Your task to perform on an android device: set default search engine in the chrome app Image 0: 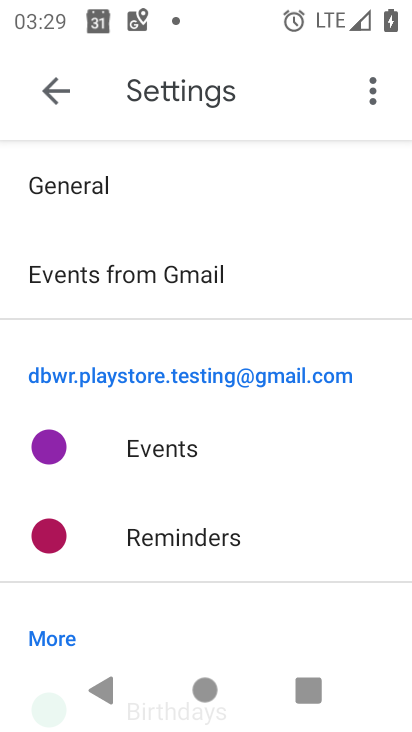
Step 0: press home button
Your task to perform on an android device: set default search engine in the chrome app Image 1: 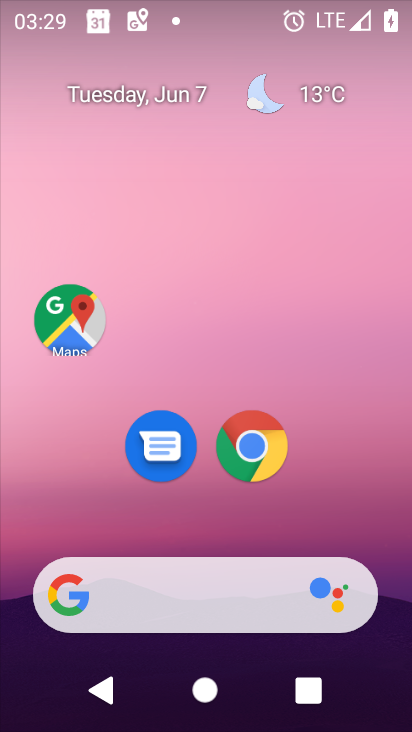
Step 1: drag from (116, 607) to (325, 55)
Your task to perform on an android device: set default search engine in the chrome app Image 2: 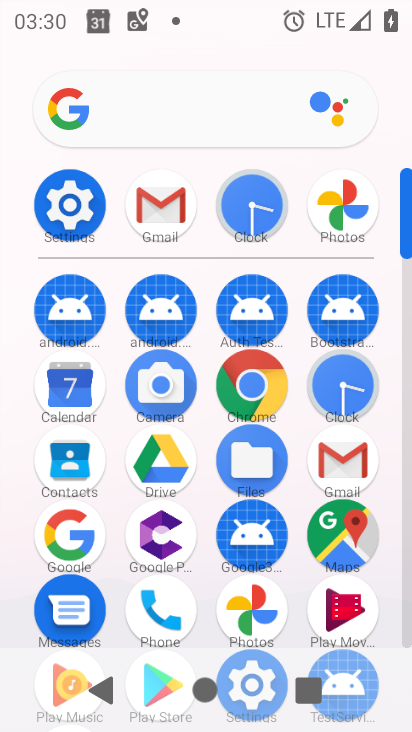
Step 2: click (261, 375)
Your task to perform on an android device: set default search engine in the chrome app Image 3: 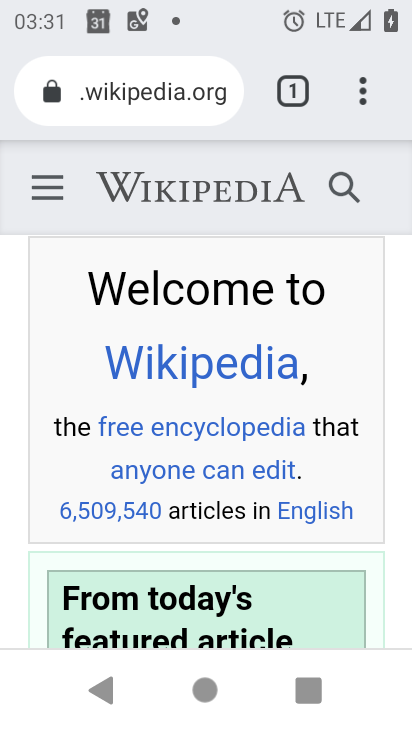
Step 3: click (366, 96)
Your task to perform on an android device: set default search engine in the chrome app Image 4: 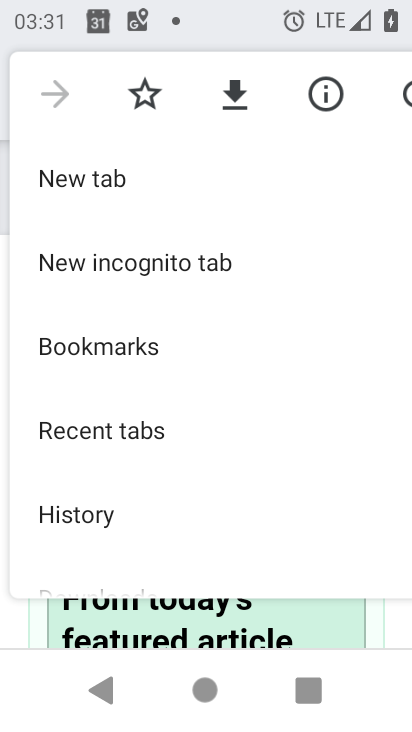
Step 4: drag from (166, 449) to (214, 10)
Your task to perform on an android device: set default search engine in the chrome app Image 5: 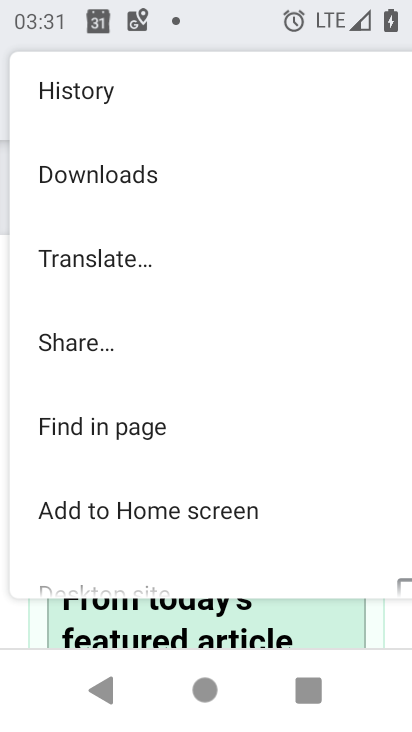
Step 5: drag from (178, 522) to (207, 144)
Your task to perform on an android device: set default search engine in the chrome app Image 6: 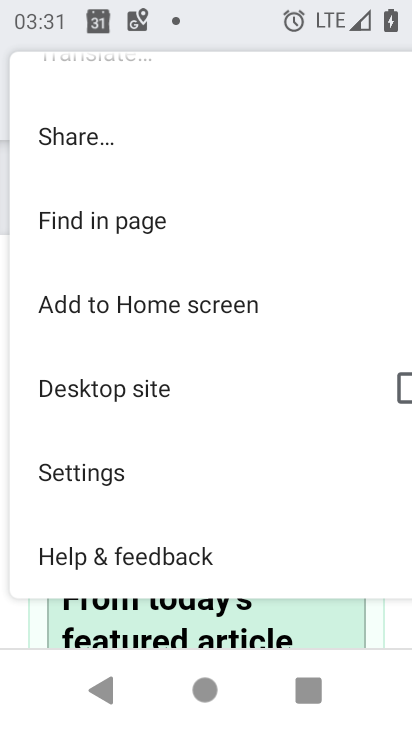
Step 6: click (123, 467)
Your task to perform on an android device: set default search engine in the chrome app Image 7: 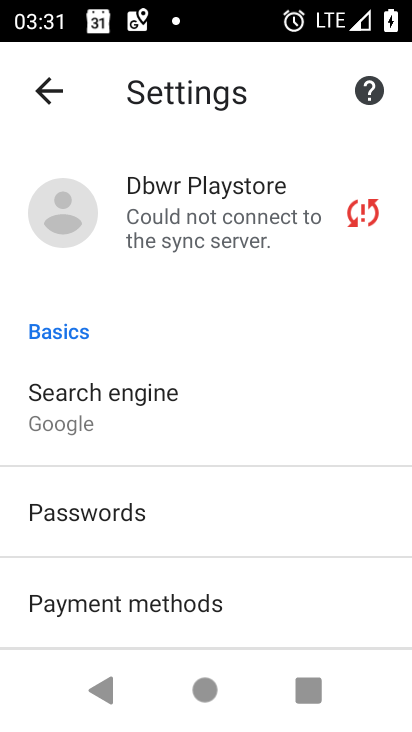
Step 7: click (133, 429)
Your task to perform on an android device: set default search engine in the chrome app Image 8: 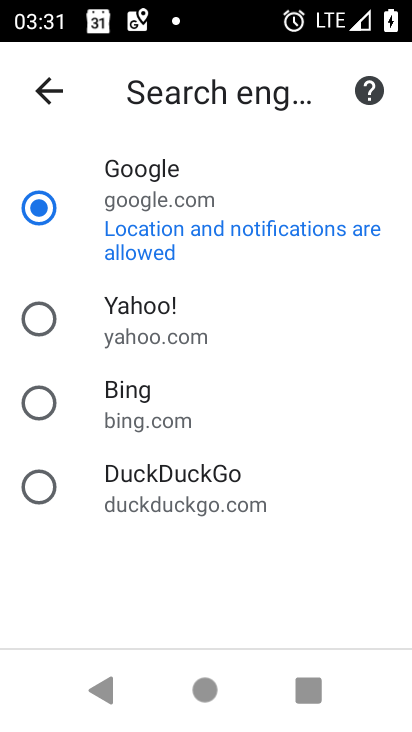
Step 8: task complete